Your task to perform on an android device: Go to wifi settings Image 0: 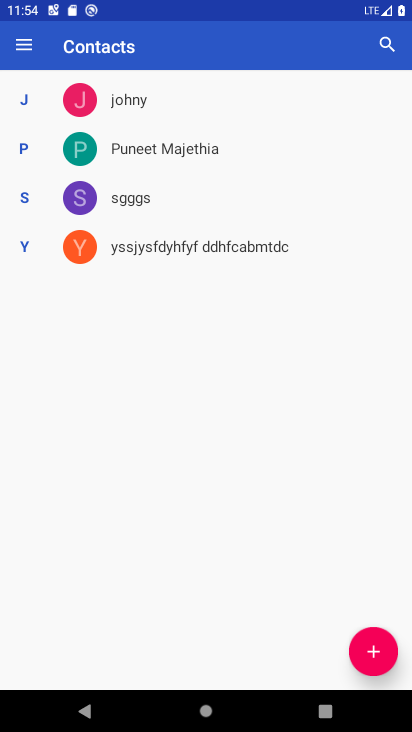
Step 0: press back button
Your task to perform on an android device: Go to wifi settings Image 1: 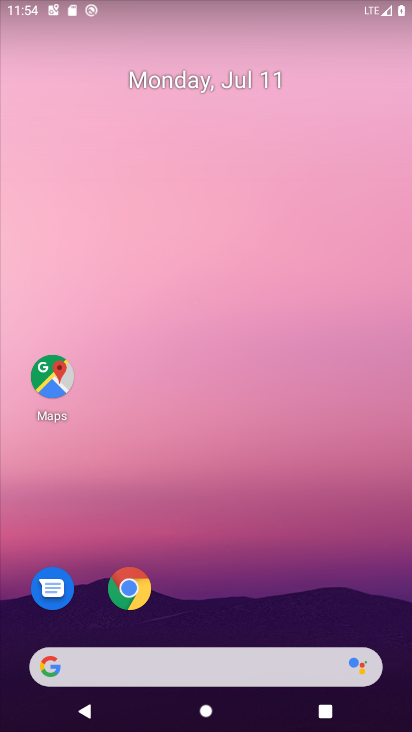
Step 1: drag from (274, 662) to (238, 117)
Your task to perform on an android device: Go to wifi settings Image 2: 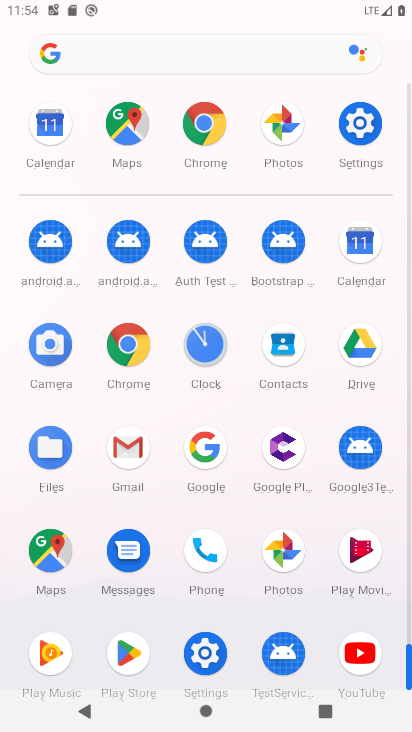
Step 2: click (357, 119)
Your task to perform on an android device: Go to wifi settings Image 3: 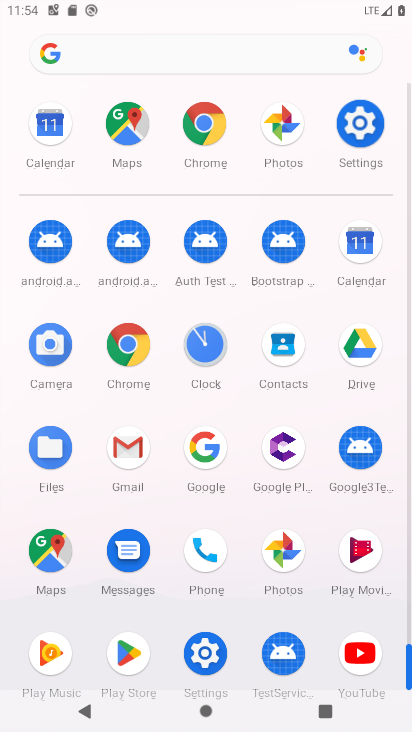
Step 3: click (358, 118)
Your task to perform on an android device: Go to wifi settings Image 4: 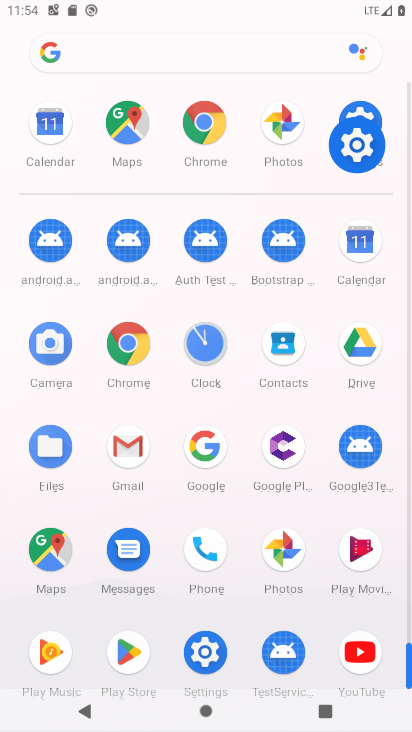
Step 4: click (358, 118)
Your task to perform on an android device: Go to wifi settings Image 5: 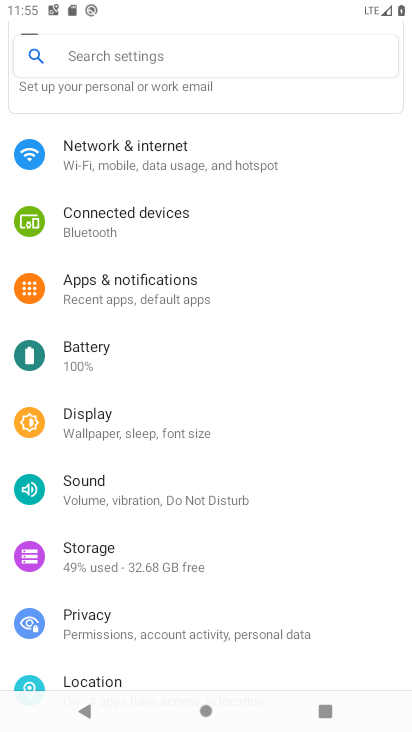
Step 5: drag from (96, 379) to (92, 164)
Your task to perform on an android device: Go to wifi settings Image 6: 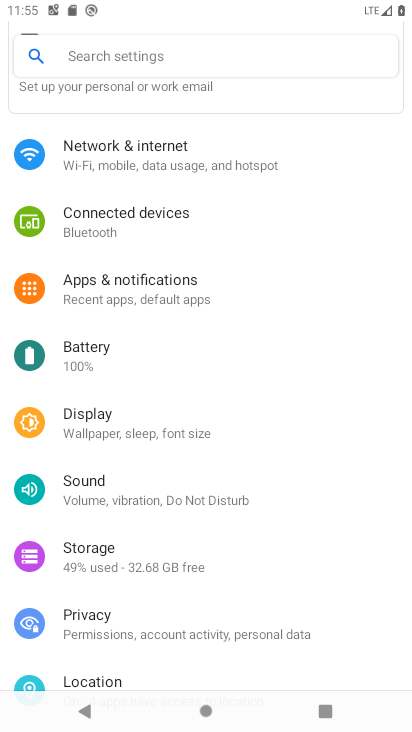
Step 6: drag from (136, 456) to (194, 134)
Your task to perform on an android device: Go to wifi settings Image 7: 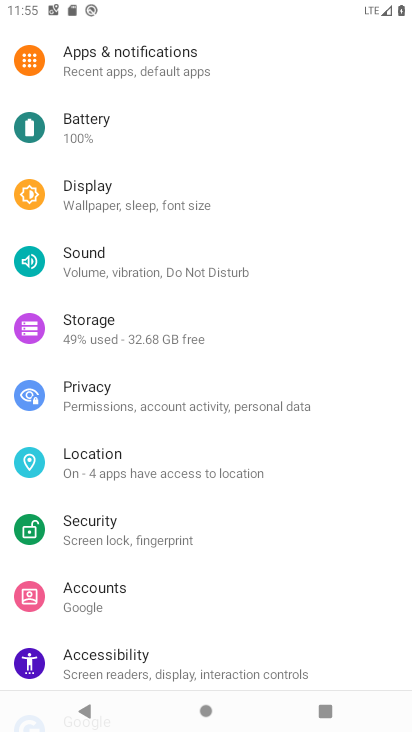
Step 7: drag from (95, 528) to (104, 29)
Your task to perform on an android device: Go to wifi settings Image 8: 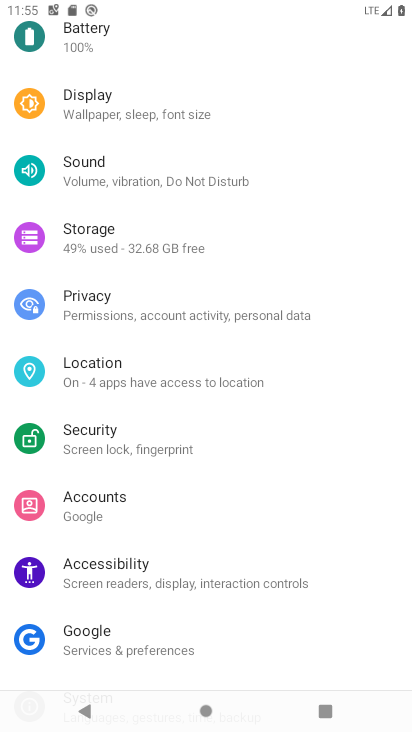
Step 8: drag from (75, 405) to (140, 1)
Your task to perform on an android device: Go to wifi settings Image 9: 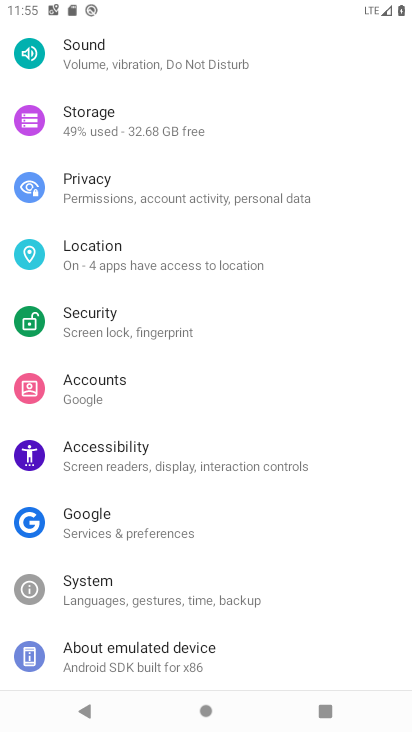
Step 9: drag from (137, 146) to (161, 602)
Your task to perform on an android device: Go to wifi settings Image 10: 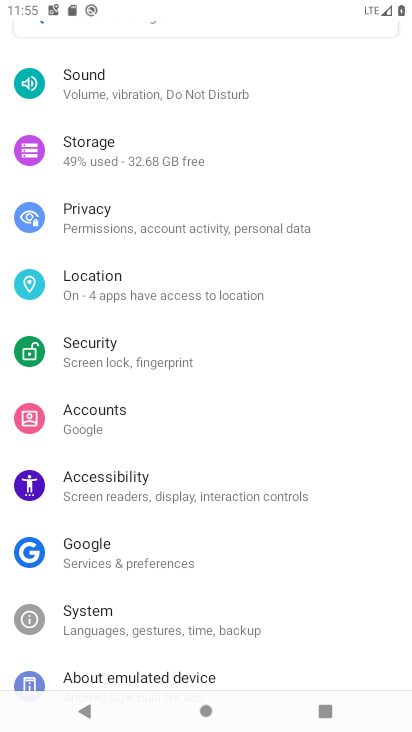
Step 10: drag from (86, 198) to (126, 611)
Your task to perform on an android device: Go to wifi settings Image 11: 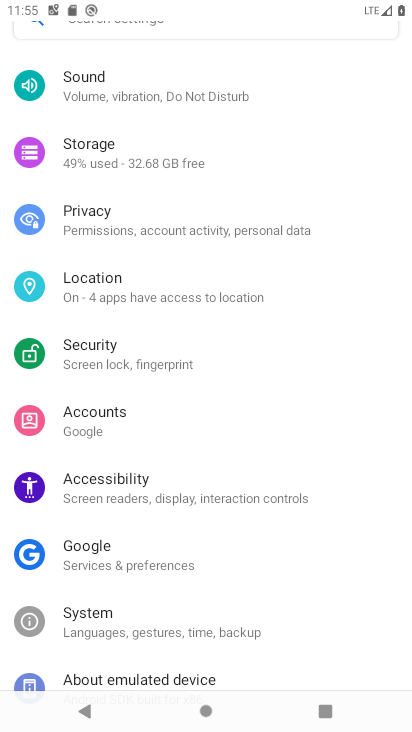
Step 11: drag from (133, 178) to (157, 610)
Your task to perform on an android device: Go to wifi settings Image 12: 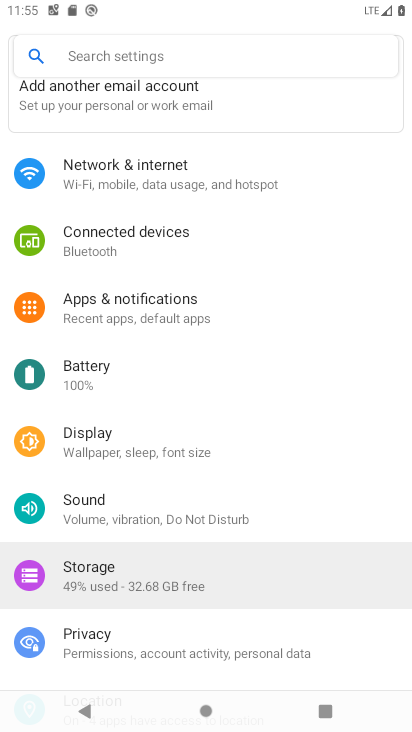
Step 12: drag from (144, 289) to (242, 679)
Your task to perform on an android device: Go to wifi settings Image 13: 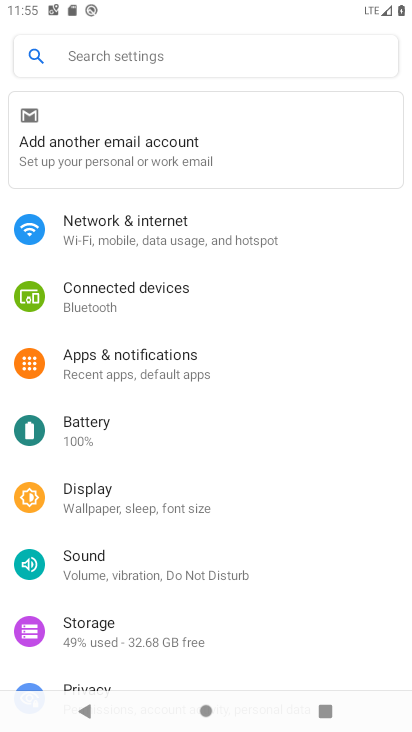
Step 13: click (137, 121)
Your task to perform on an android device: Go to wifi settings Image 14: 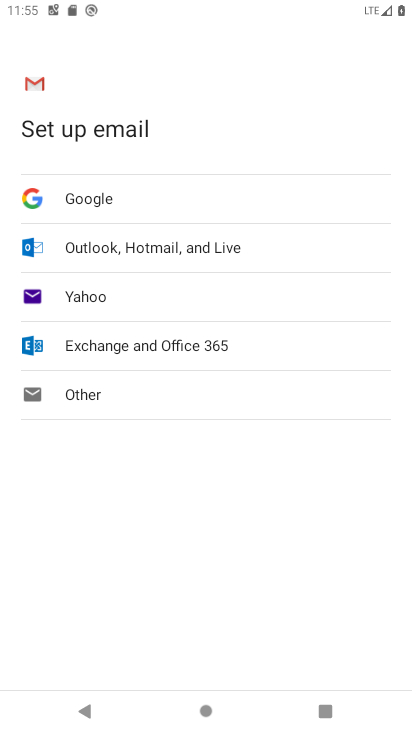
Step 14: press back button
Your task to perform on an android device: Go to wifi settings Image 15: 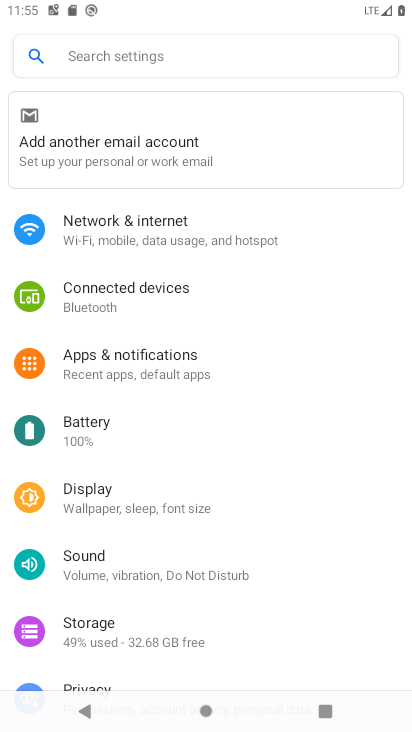
Step 15: click (146, 231)
Your task to perform on an android device: Go to wifi settings Image 16: 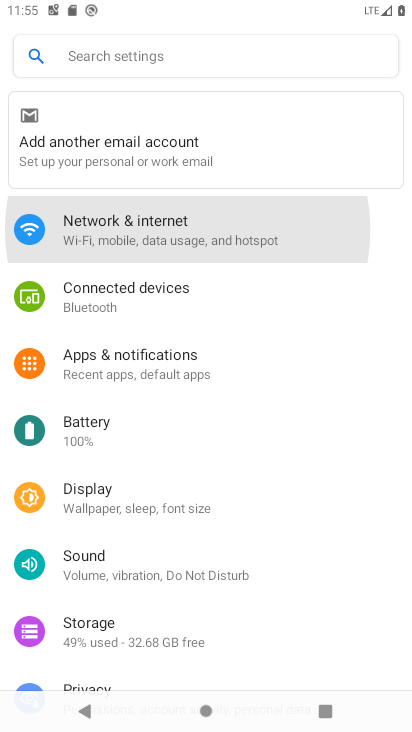
Step 16: click (153, 236)
Your task to perform on an android device: Go to wifi settings Image 17: 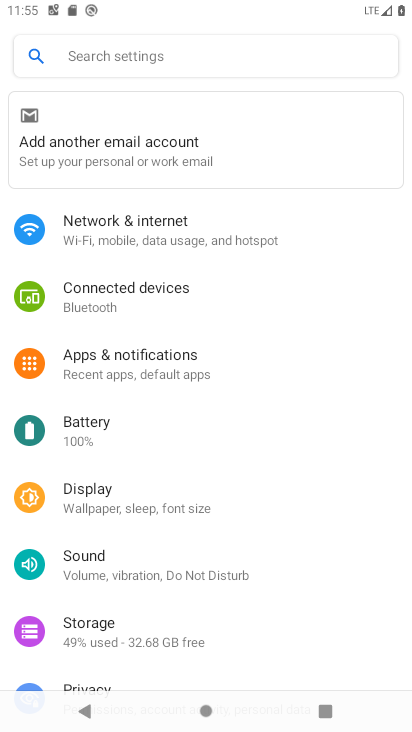
Step 17: click (153, 236)
Your task to perform on an android device: Go to wifi settings Image 18: 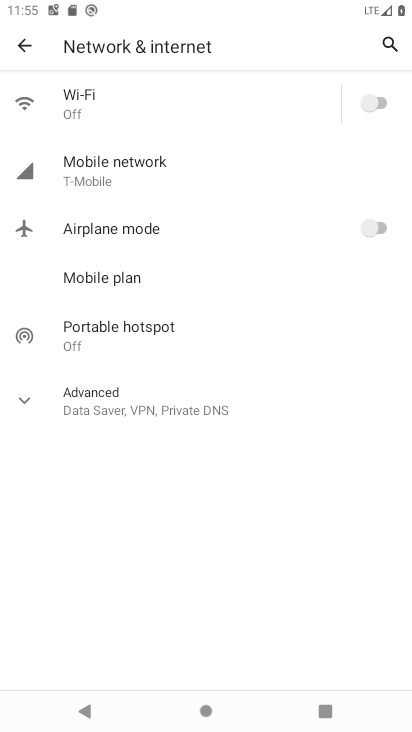
Step 18: task complete